Your task to perform on an android device: Open Google Maps and go to "Timeline" Image 0: 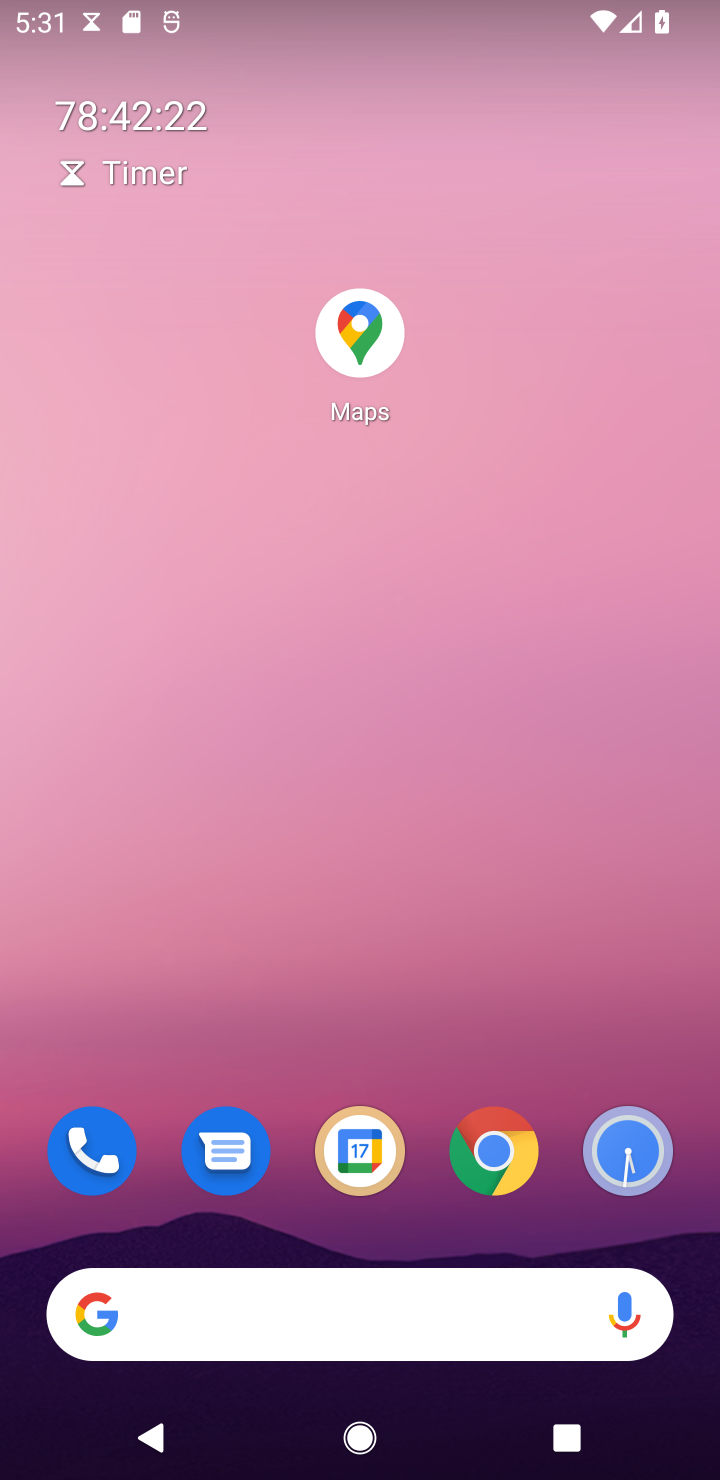
Step 0: drag from (316, 842) to (336, 239)
Your task to perform on an android device: Open Google Maps and go to "Timeline" Image 1: 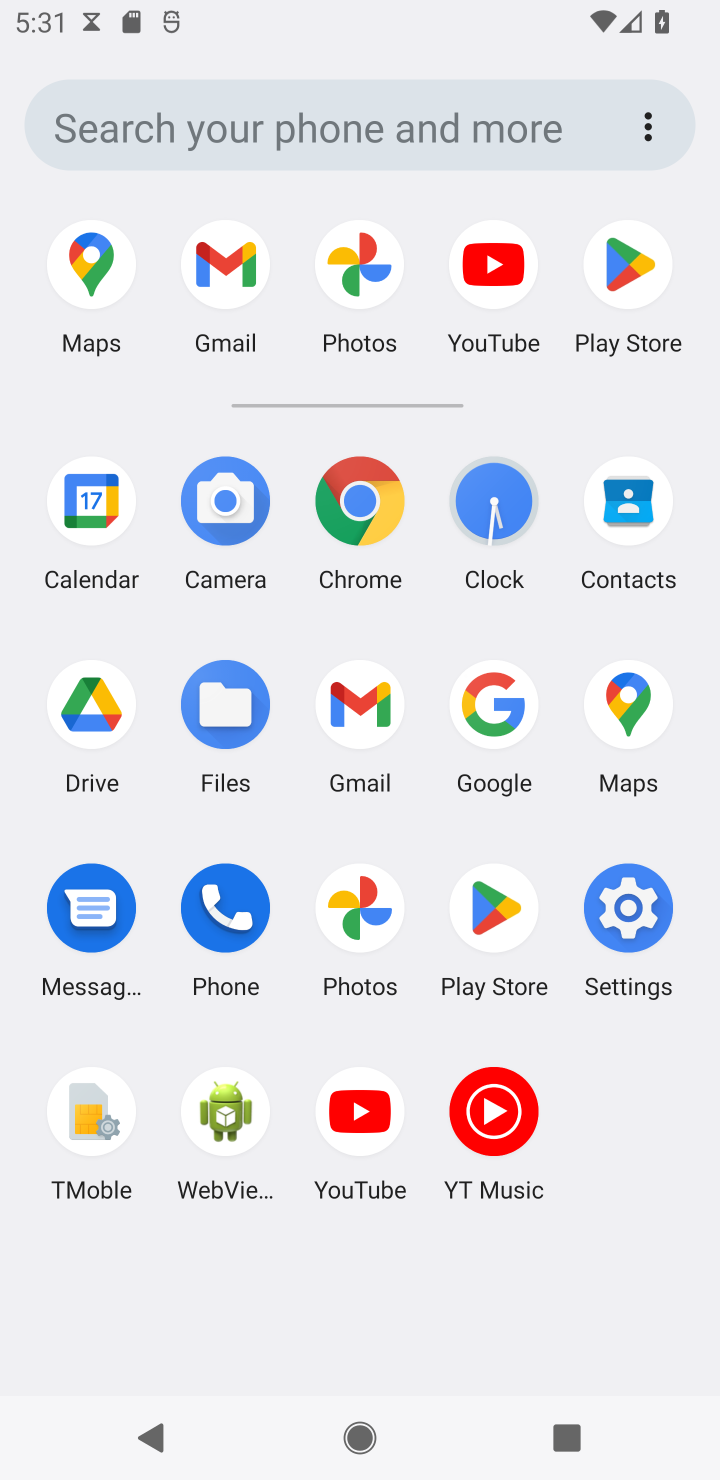
Step 1: click (610, 712)
Your task to perform on an android device: Open Google Maps and go to "Timeline" Image 2: 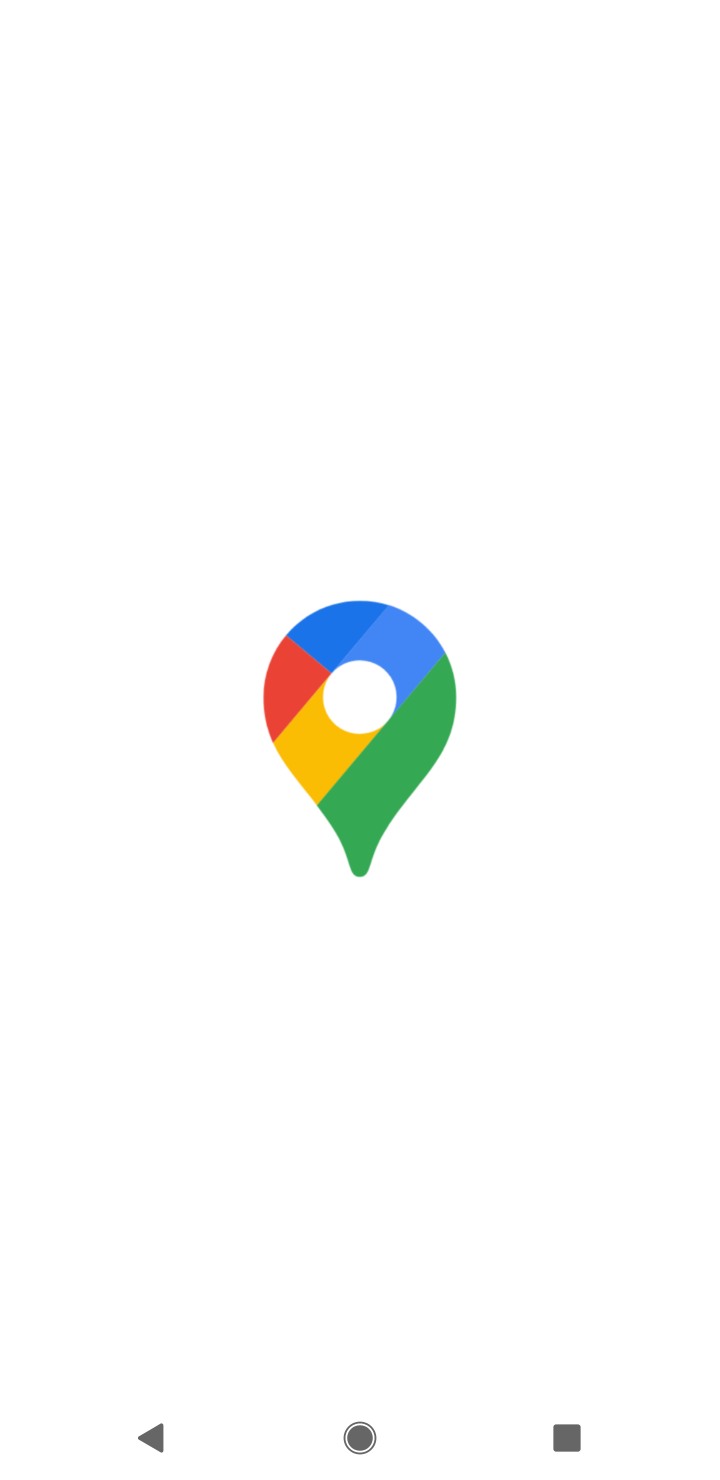
Step 2: task complete